Your task to perform on an android device: delete a single message in the gmail app Image 0: 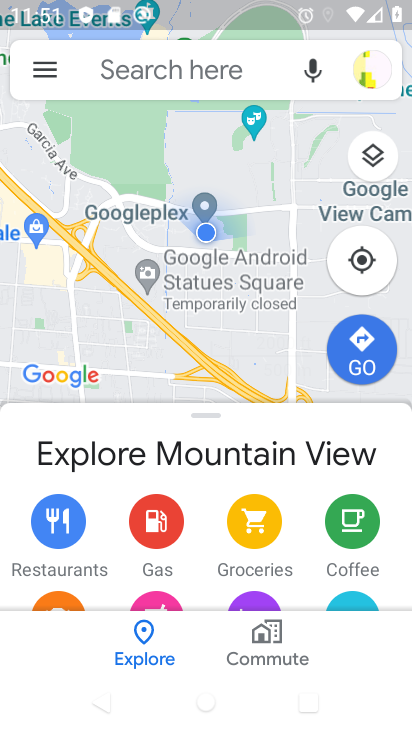
Step 0: press home button
Your task to perform on an android device: delete a single message in the gmail app Image 1: 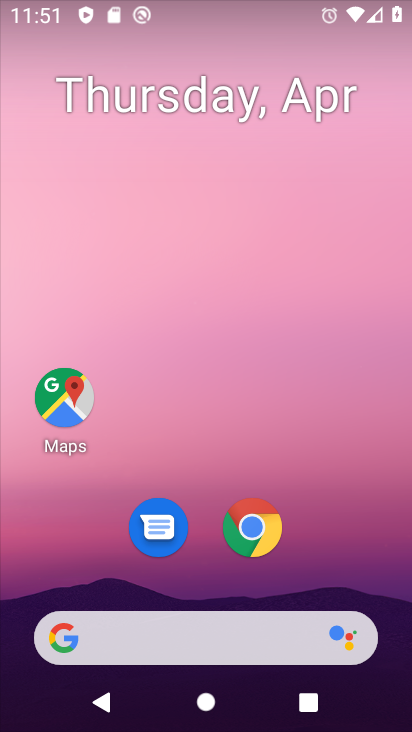
Step 1: drag from (207, 563) to (207, 66)
Your task to perform on an android device: delete a single message in the gmail app Image 2: 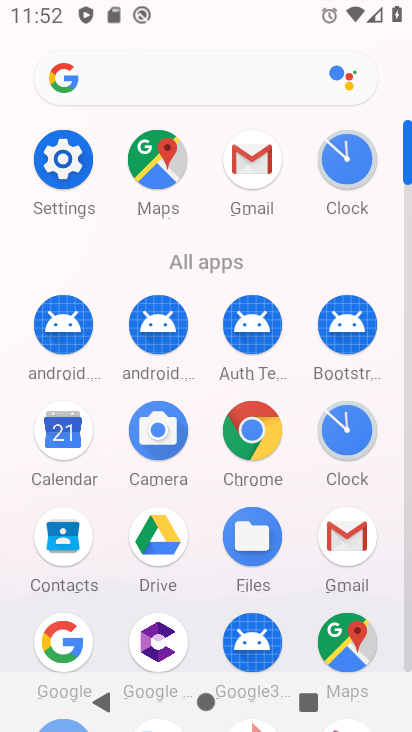
Step 2: click (252, 176)
Your task to perform on an android device: delete a single message in the gmail app Image 3: 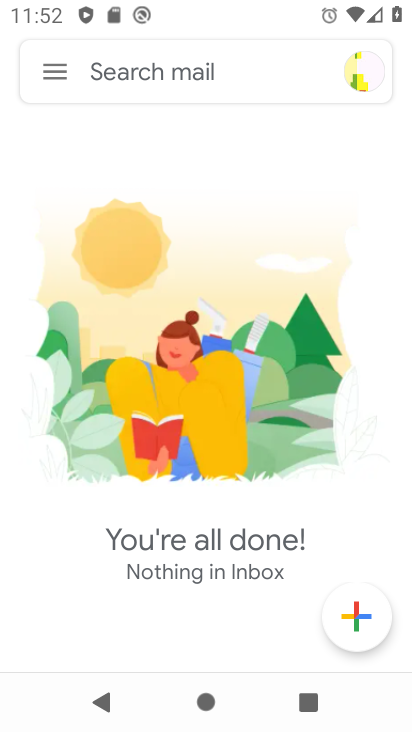
Step 3: click (45, 69)
Your task to perform on an android device: delete a single message in the gmail app Image 4: 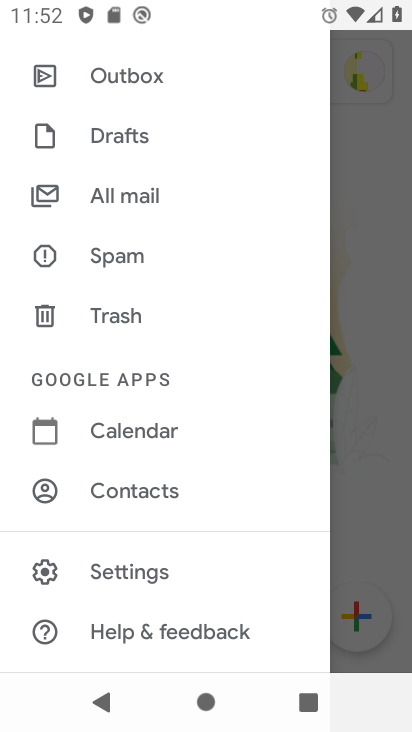
Step 4: click (173, 195)
Your task to perform on an android device: delete a single message in the gmail app Image 5: 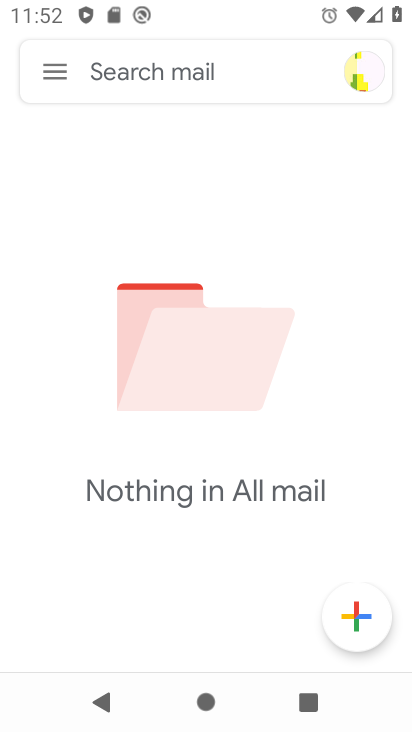
Step 5: task complete